Your task to perform on an android device: Open Chrome and go to the settings page Image 0: 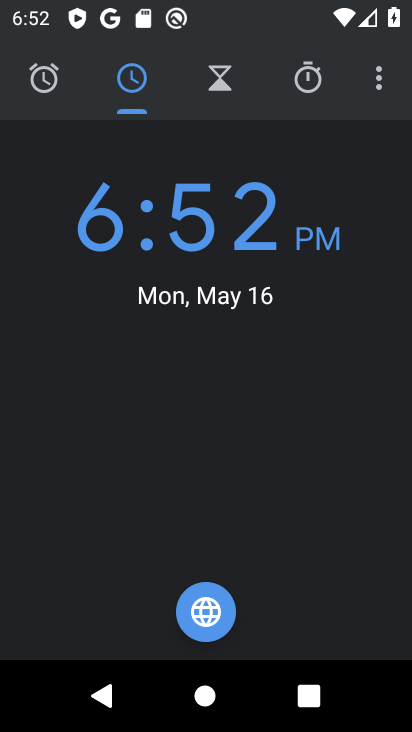
Step 0: press home button
Your task to perform on an android device: Open Chrome and go to the settings page Image 1: 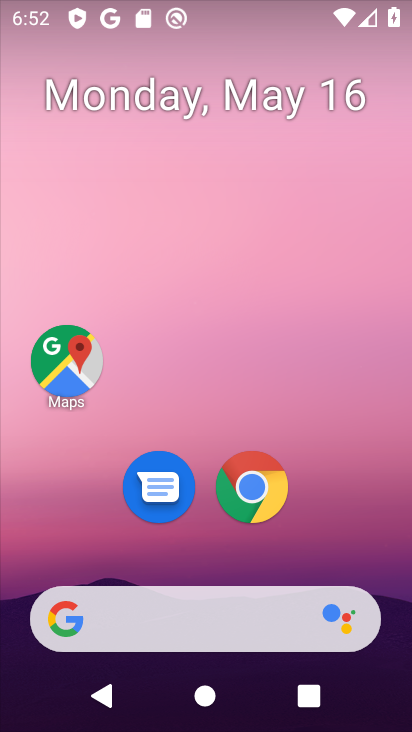
Step 1: click (263, 498)
Your task to perform on an android device: Open Chrome and go to the settings page Image 2: 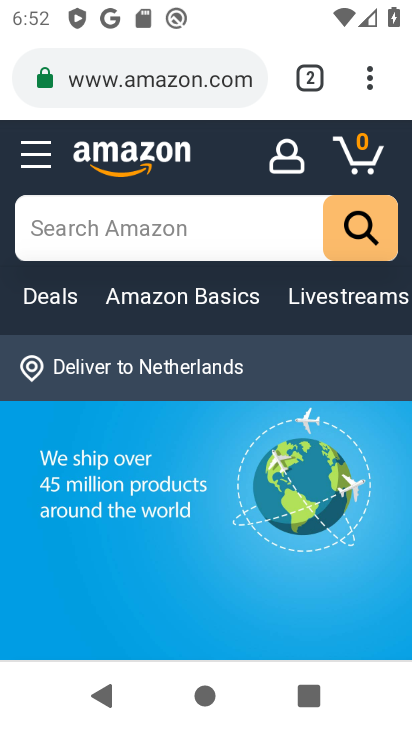
Step 2: click (360, 86)
Your task to perform on an android device: Open Chrome and go to the settings page Image 3: 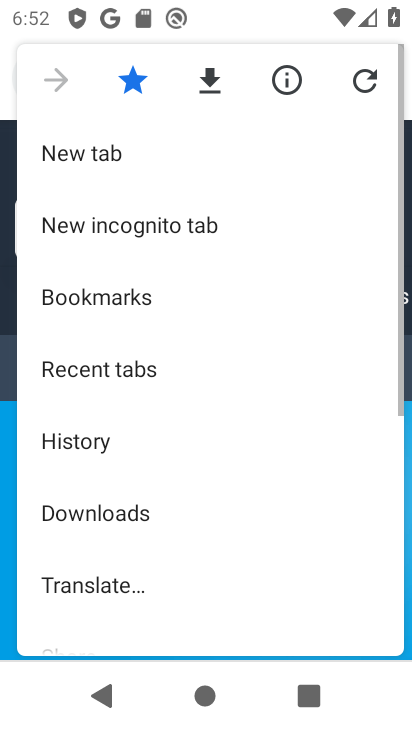
Step 3: drag from (265, 598) to (193, 138)
Your task to perform on an android device: Open Chrome and go to the settings page Image 4: 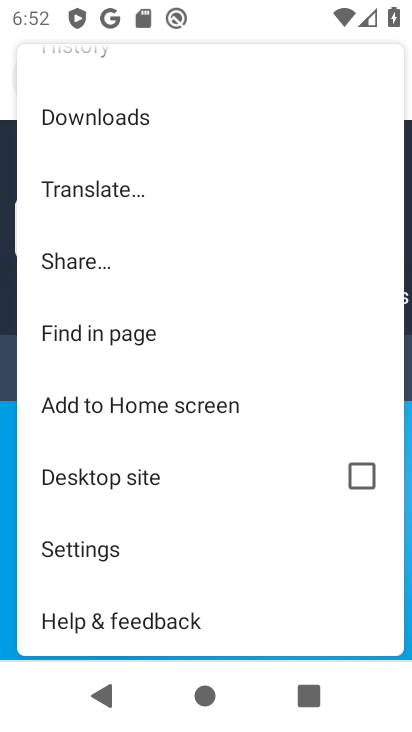
Step 4: click (108, 548)
Your task to perform on an android device: Open Chrome and go to the settings page Image 5: 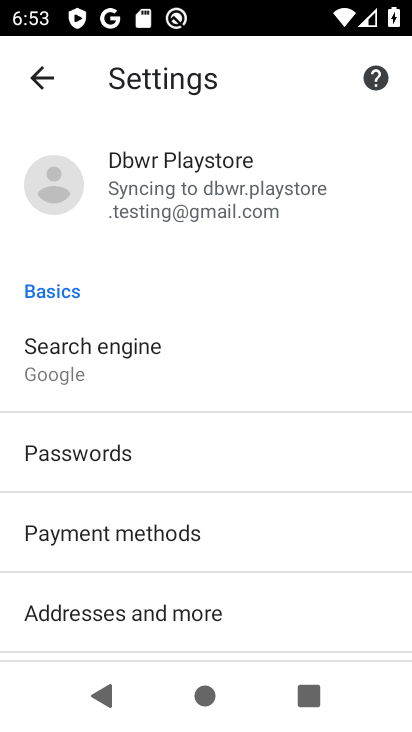
Step 5: task complete